Your task to perform on an android device: install app "Venmo" Image 0: 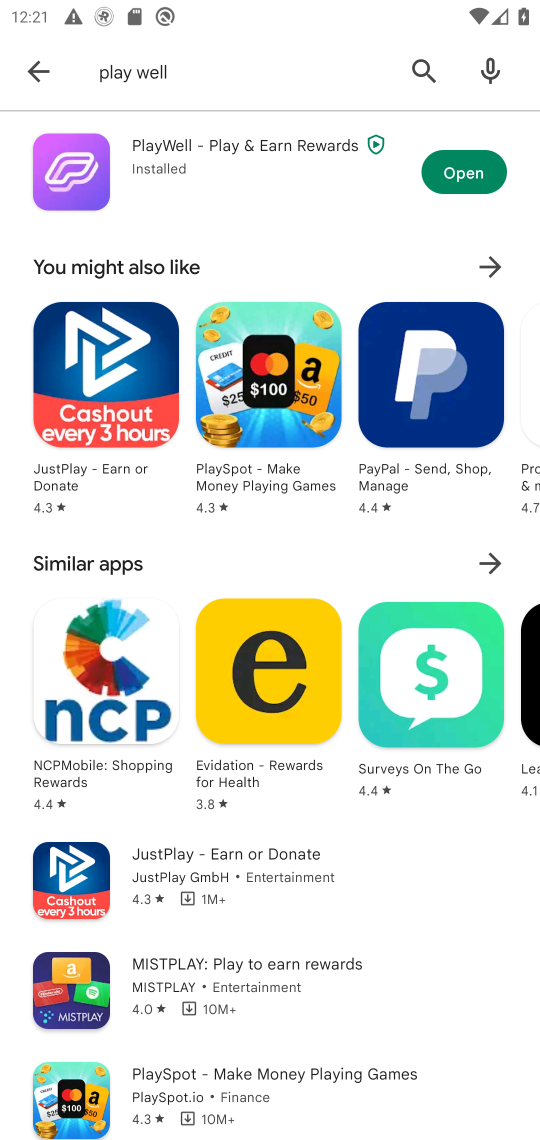
Step 0: press home button
Your task to perform on an android device: install app "Venmo" Image 1: 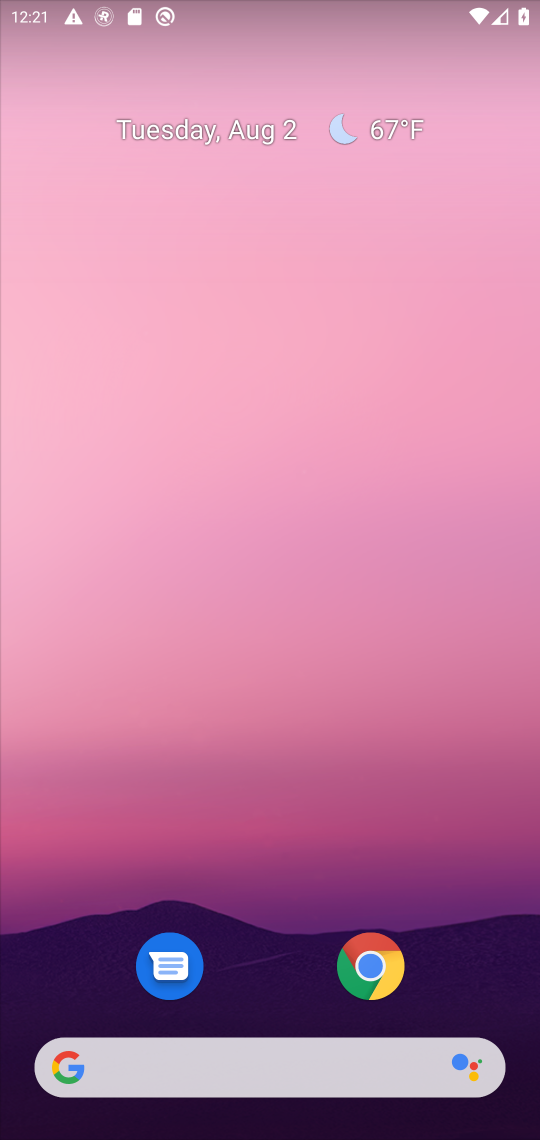
Step 1: drag from (307, 867) to (336, 251)
Your task to perform on an android device: install app "Venmo" Image 2: 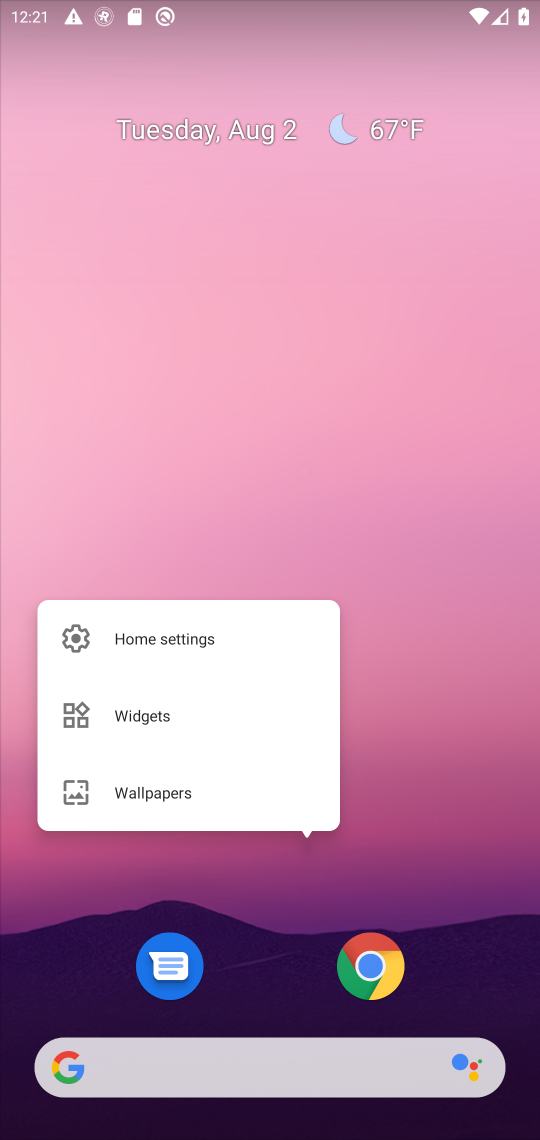
Step 2: click (476, 741)
Your task to perform on an android device: install app "Venmo" Image 3: 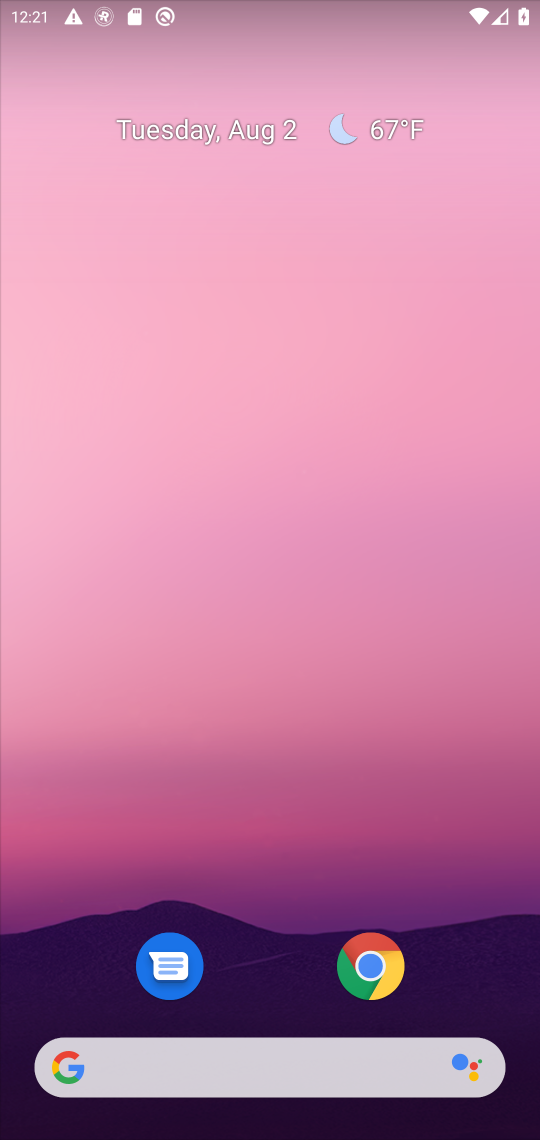
Step 3: drag from (269, 898) to (273, 143)
Your task to perform on an android device: install app "Venmo" Image 4: 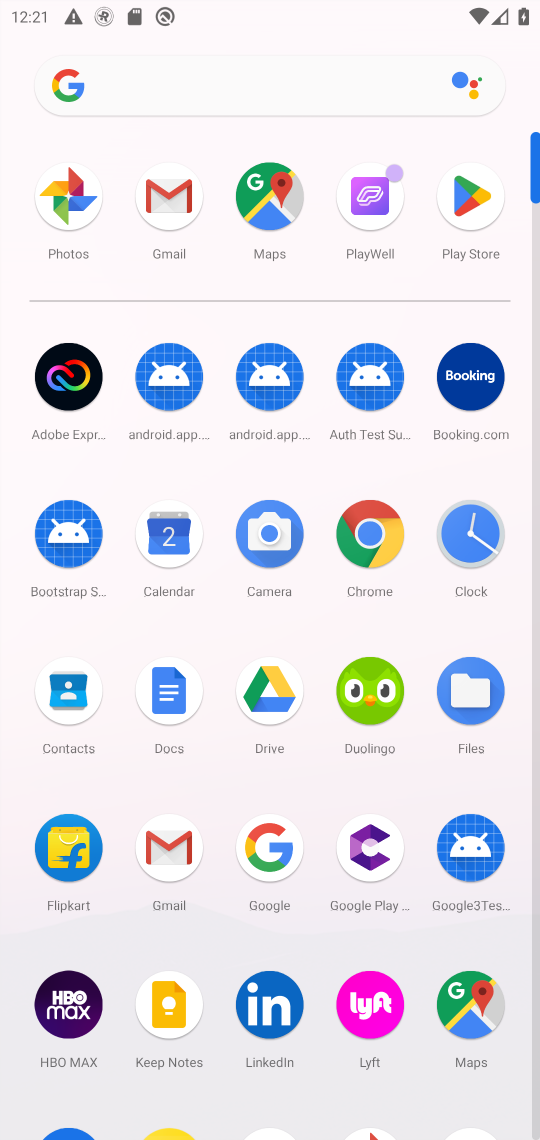
Step 4: click (460, 200)
Your task to perform on an android device: install app "Venmo" Image 5: 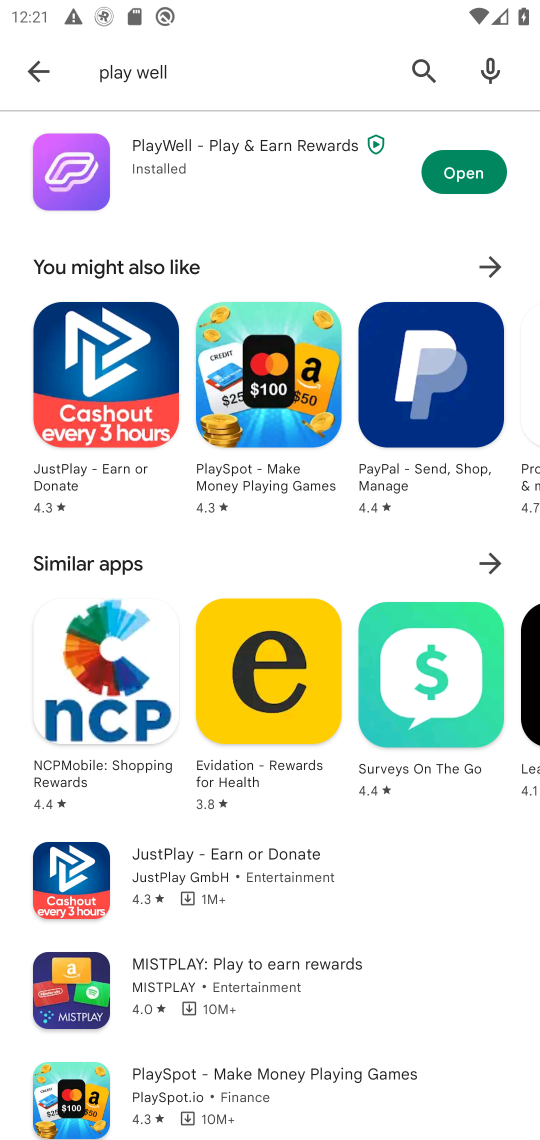
Step 5: click (420, 59)
Your task to perform on an android device: install app "Venmo" Image 6: 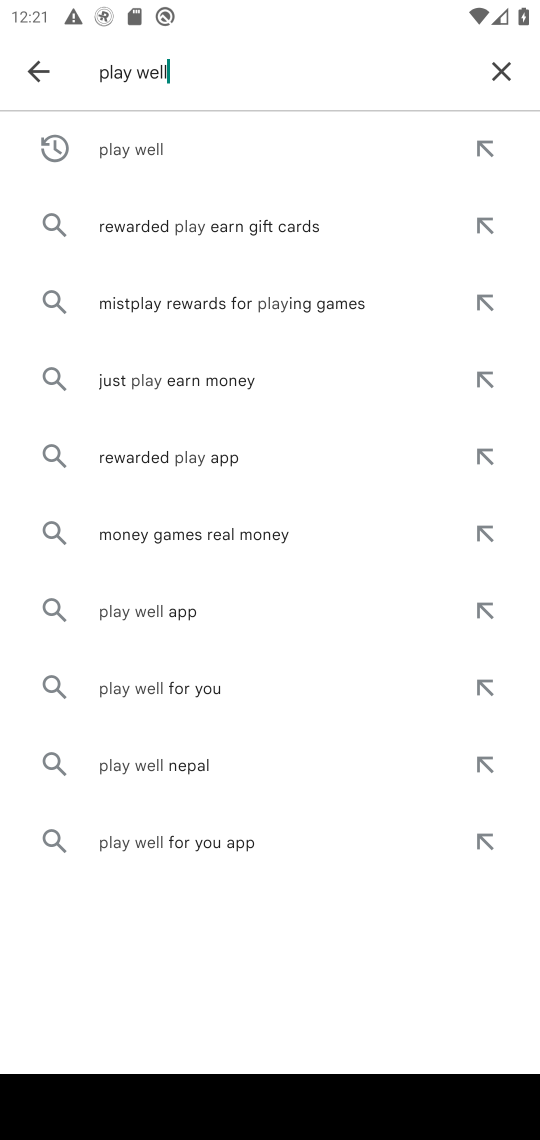
Step 6: click (505, 93)
Your task to perform on an android device: install app "Venmo" Image 7: 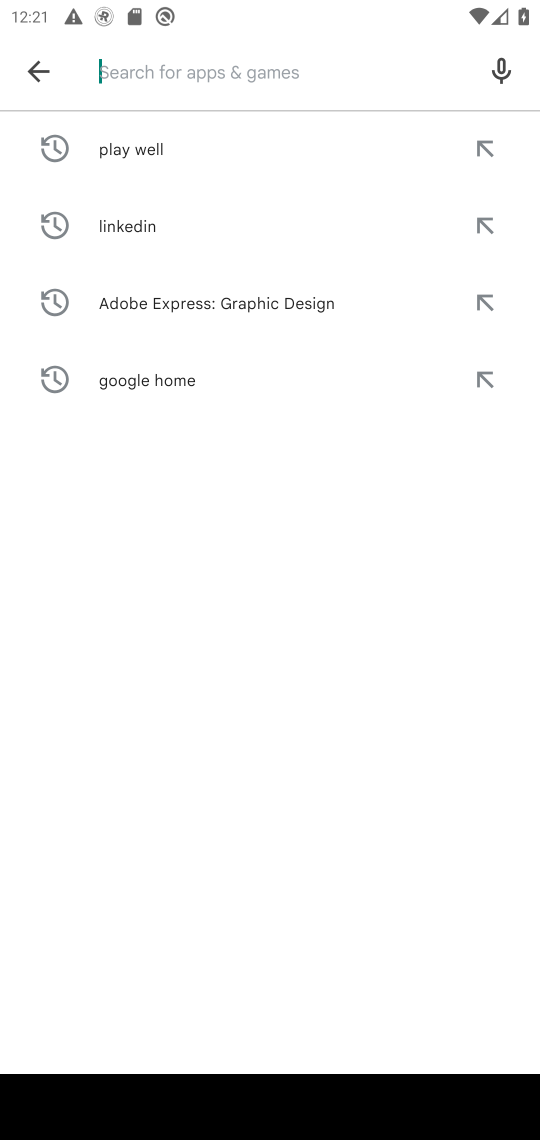
Step 7: click (348, 74)
Your task to perform on an android device: install app "Venmo" Image 8: 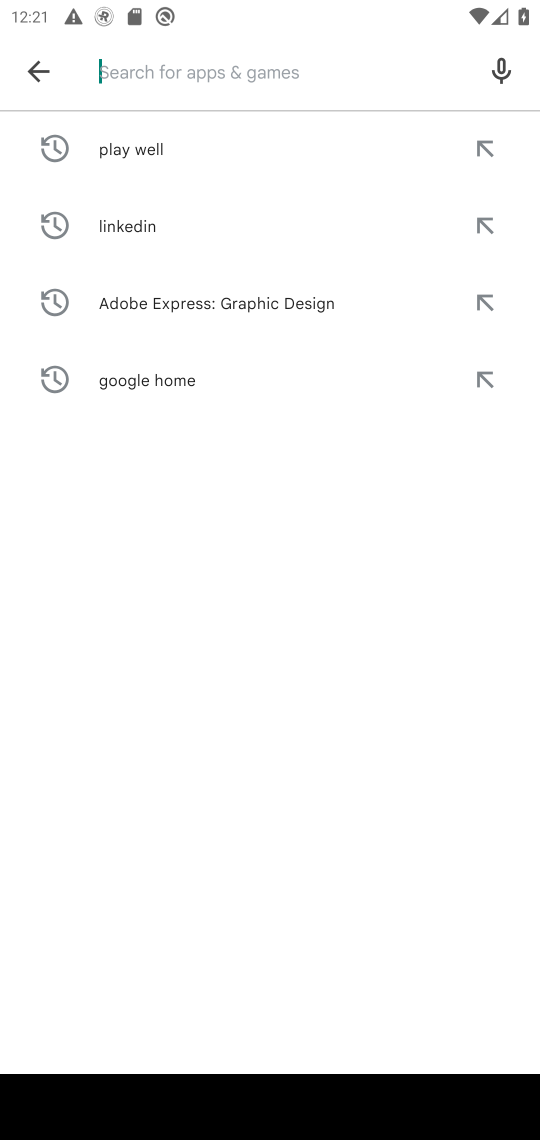
Step 8: type "venmo"
Your task to perform on an android device: install app "Venmo" Image 9: 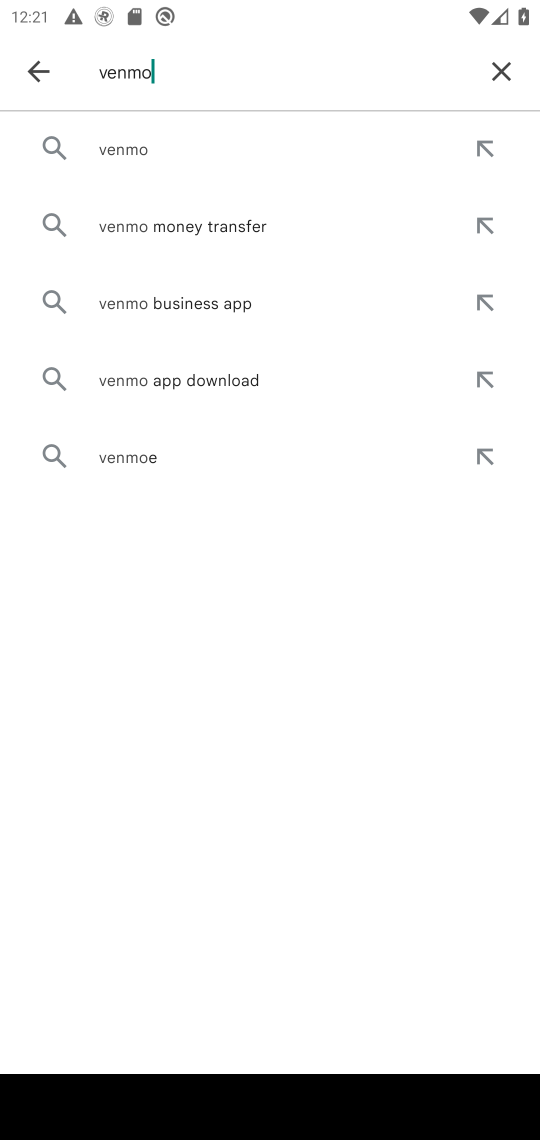
Step 9: click (289, 142)
Your task to perform on an android device: install app "Venmo" Image 10: 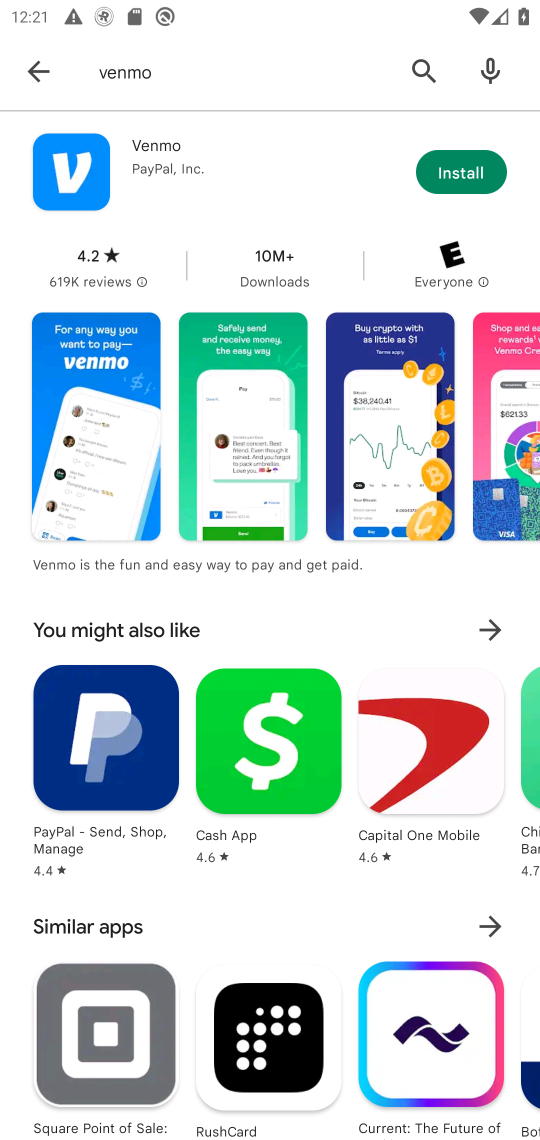
Step 10: click (476, 162)
Your task to perform on an android device: install app "Venmo" Image 11: 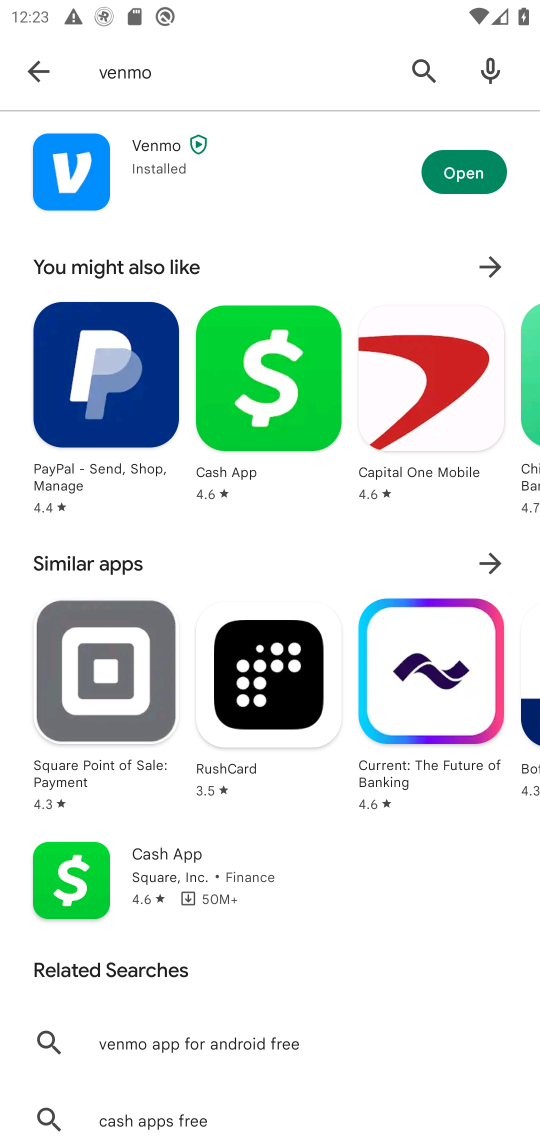
Step 11: task complete